Your task to perform on an android device: Open Chrome and go to settings Image 0: 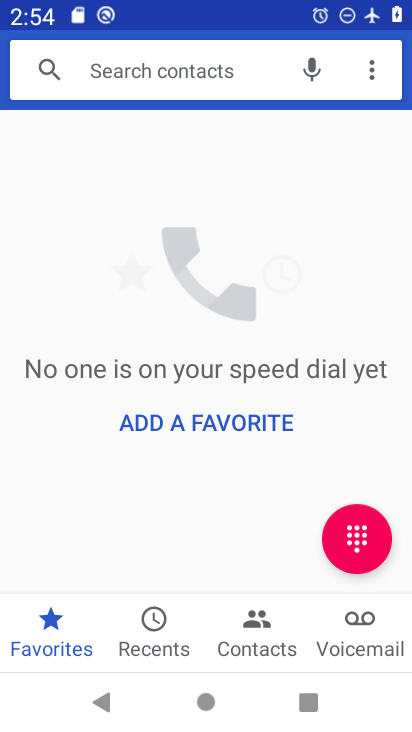
Step 0: press back button
Your task to perform on an android device: Open Chrome and go to settings Image 1: 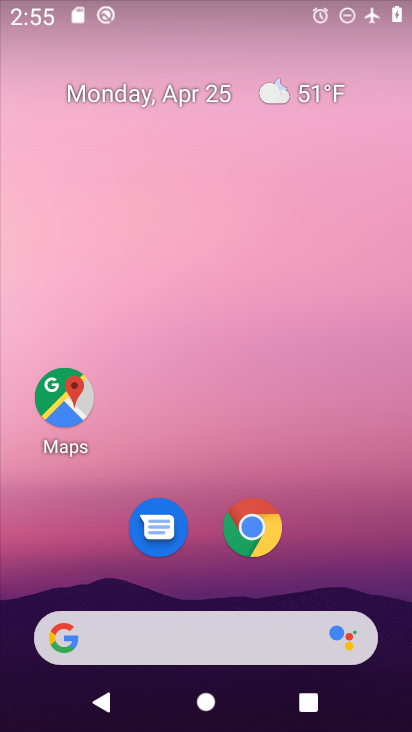
Step 1: drag from (329, 472) to (290, 28)
Your task to perform on an android device: Open Chrome and go to settings Image 2: 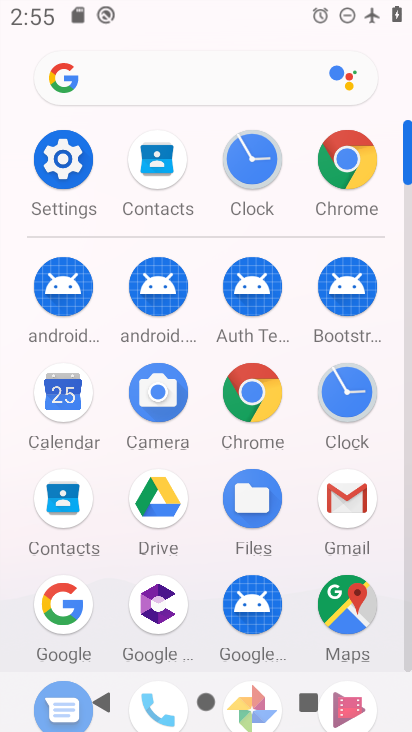
Step 2: drag from (7, 539) to (22, 185)
Your task to perform on an android device: Open Chrome and go to settings Image 3: 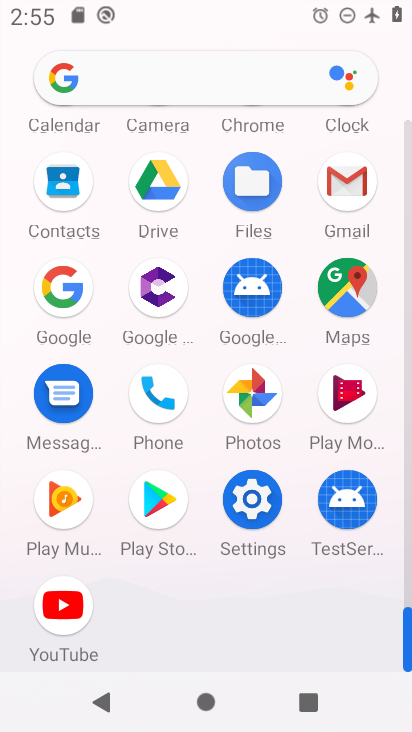
Step 3: drag from (21, 248) to (13, 485)
Your task to perform on an android device: Open Chrome and go to settings Image 4: 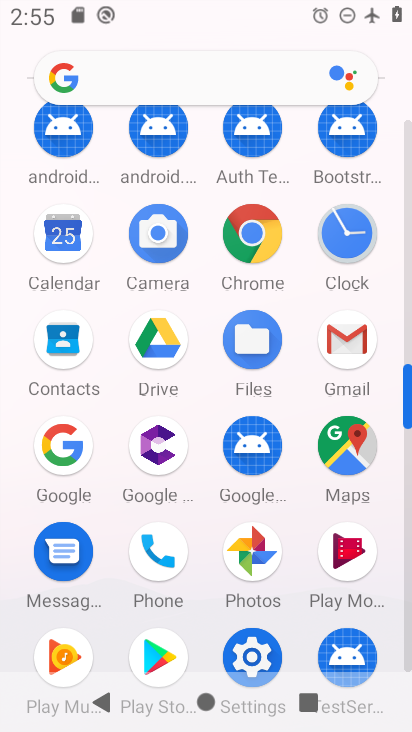
Step 4: click (252, 229)
Your task to perform on an android device: Open Chrome and go to settings Image 5: 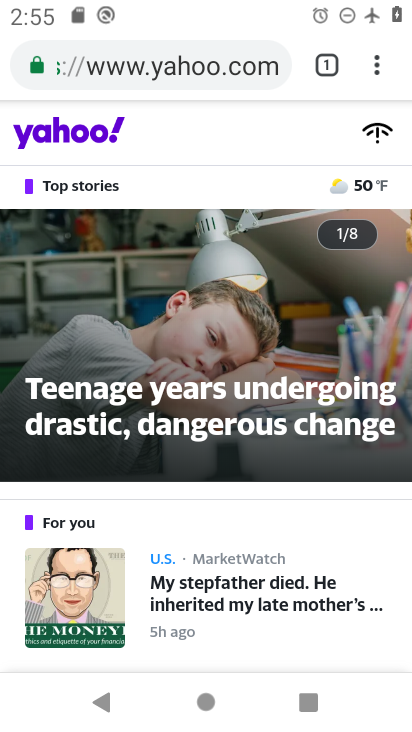
Step 5: task complete